Your task to perform on an android device: find which apps use the phone's location Image 0: 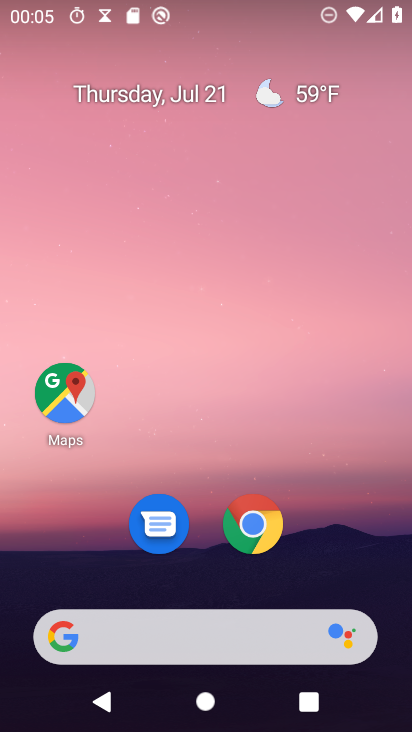
Step 0: press home button
Your task to perform on an android device: find which apps use the phone's location Image 1: 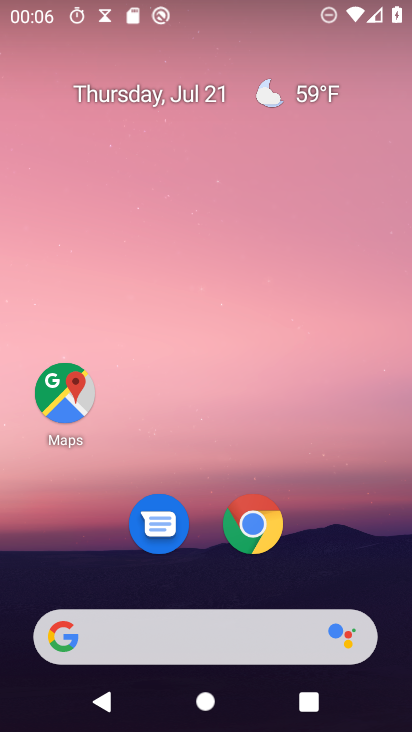
Step 1: drag from (224, 647) to (366, 15)
Your task to perform on an android device: find which apps use the phone's location Image 2: 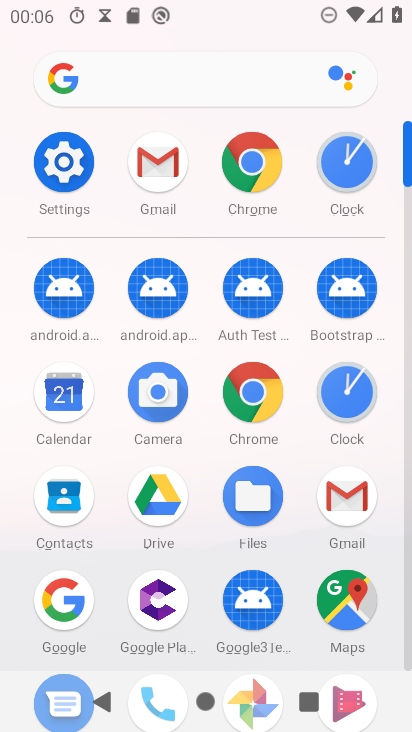
Step 2: click (49, 162)
Your task to perform on an android device: find which apps use the phone's location Image 3: 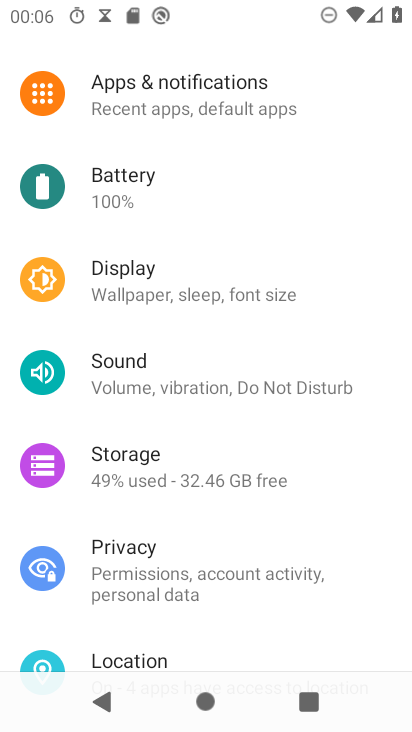
Step 3: drag from (204, 594) to (347, 106)
Your task to perform on an android device: find which apps use the phone's location Image 4: 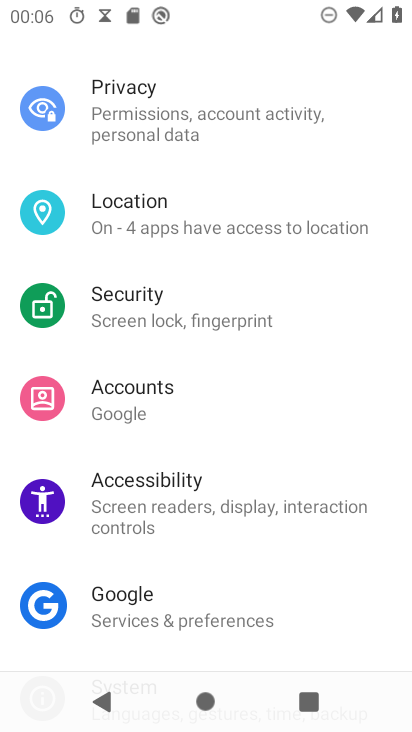
Step 4: click (138, 217)
Your task to perform on an android device: find which apps use the phone's location Image 5: 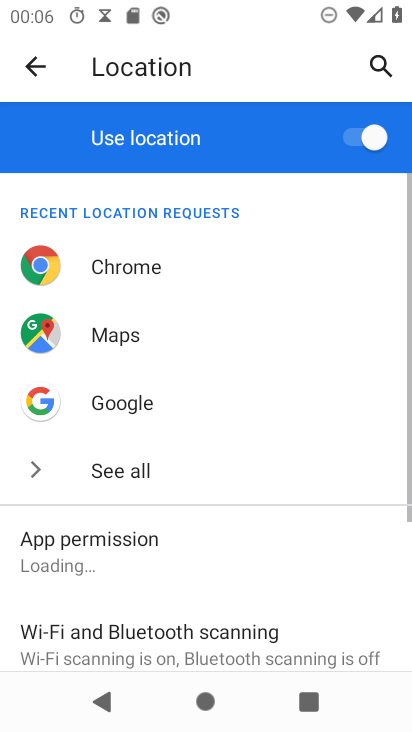
Step 5: drag from (206, 529) to (291, 230)
Your task to perform on an android device: find which apps use the phone's location Image 6: 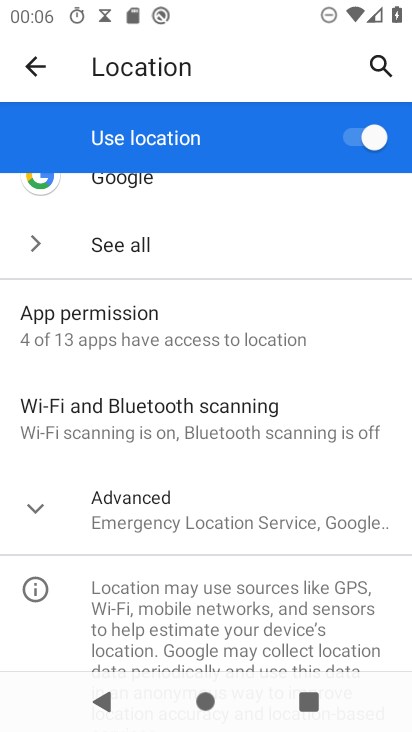
Step 6: click (163, 519)
Your task to perform on an android device: find which apps use the phone's location Image 7: 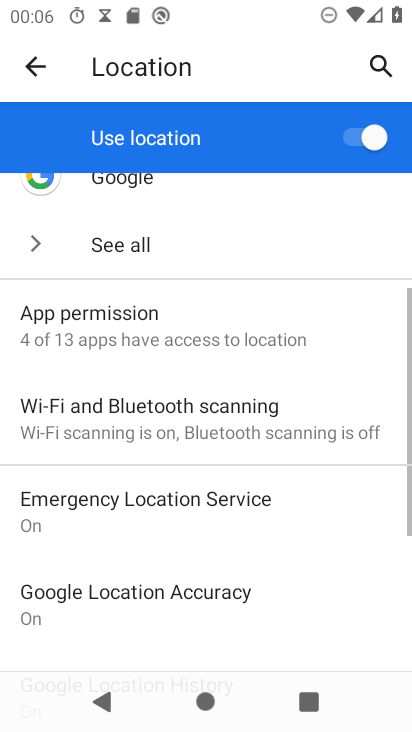
Step 7: drag from (237, 500) to (334, 154)
Your task to perform on an android device: find which apps use the phone's location Image 8: 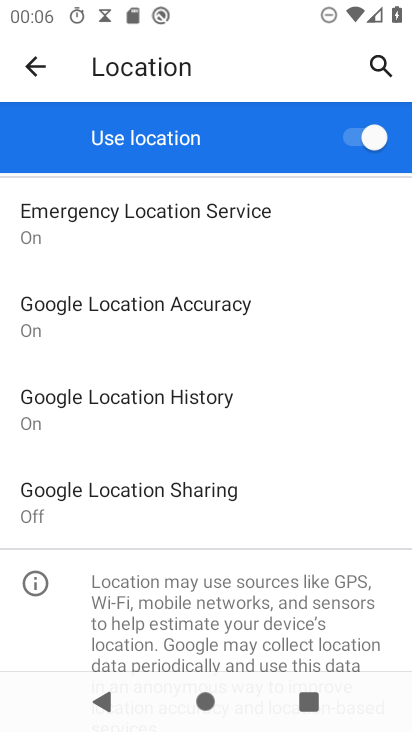
Step 8: drag from (306, 241) to (260, 627)
Your task to perform on an android device: find which apps use the phone's location Image 9: 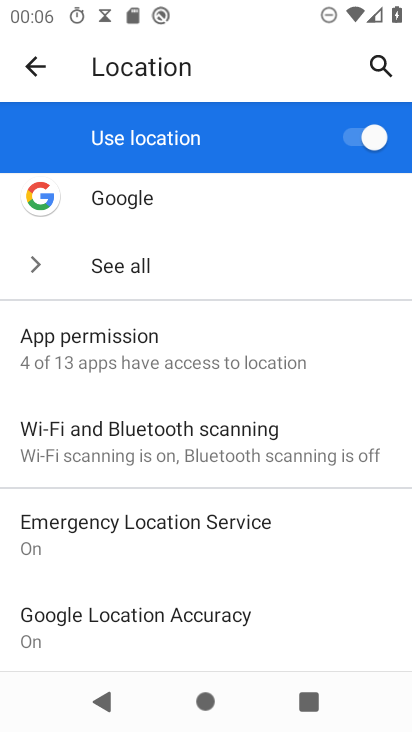
Step 9: click (109, 333)
Your task to perform on an android device: find which apps use the phone's location Image 10: 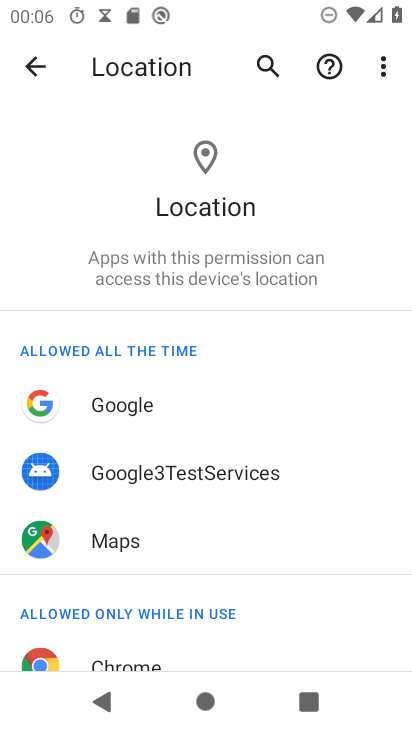
Step 10: drag from (271, 566) to (349, 2)
Your task to perform on an android device: find which apps use the phone's location Image 11: 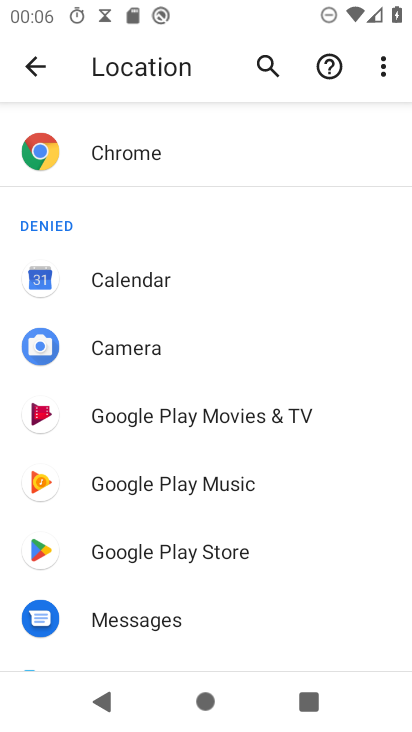
Step 11: drag from (225, 590) to (308, 39)
Your task to perform on an android device: find which apps use the phone's location Image 12: 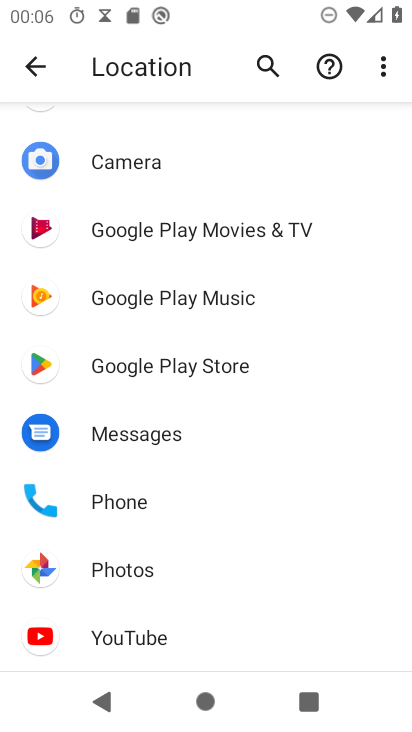
Step 12: click (132, 506)
Your task to perform on an android device: find which apps use the phone's location Image 13: 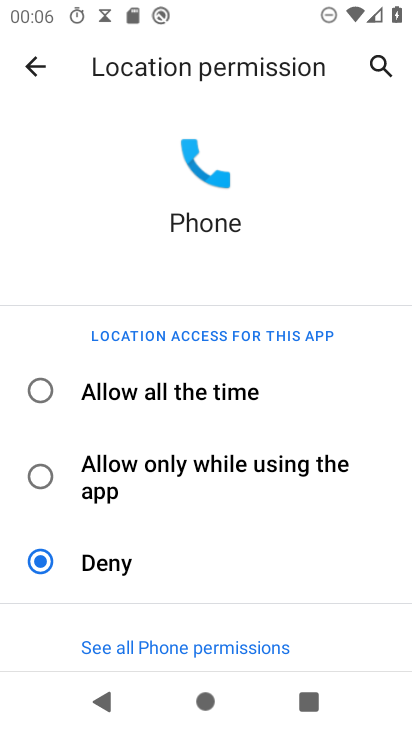
Step 13: task complete